Your task to perform on an android device: Open calendar and show me the second week of next month Image 0: 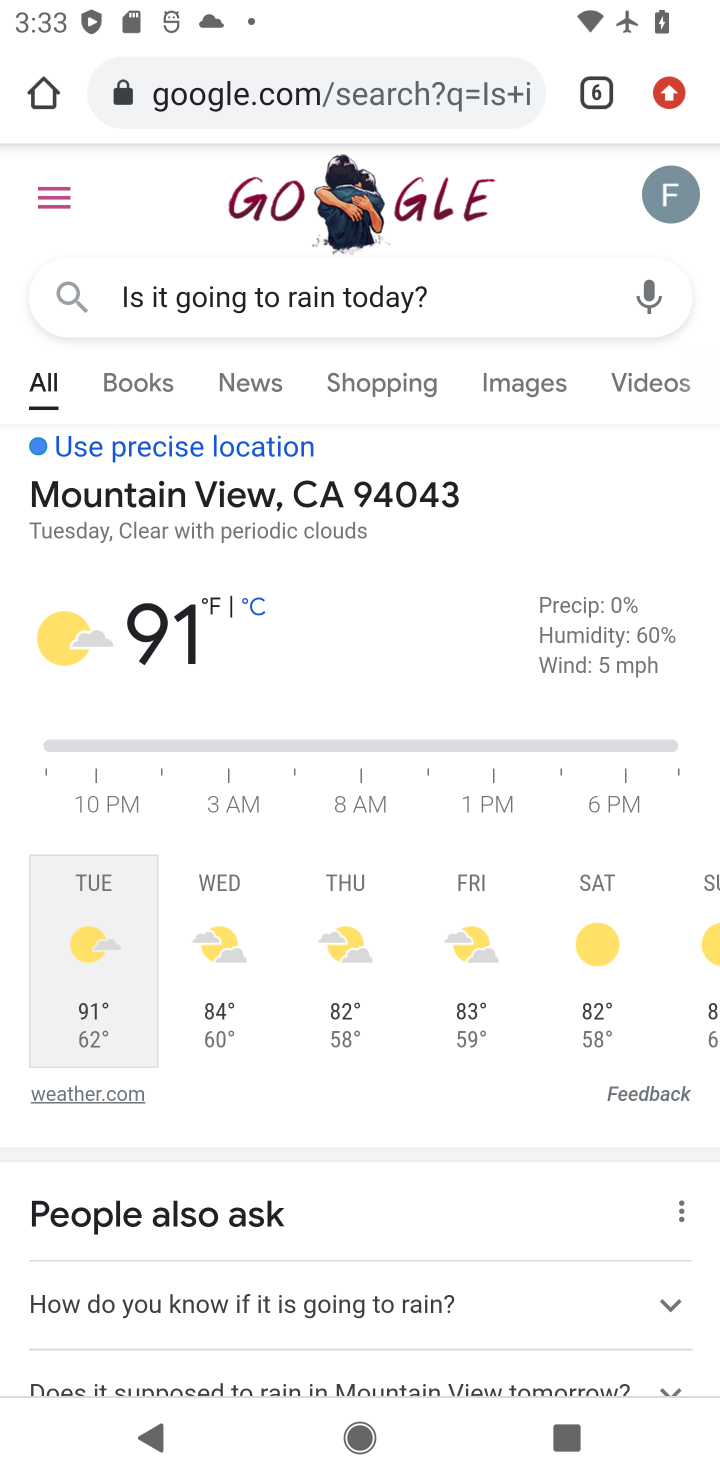
Step 0: press home button
Your task to perform on an android device: Open calendar and show me the second week of next month Image 1: 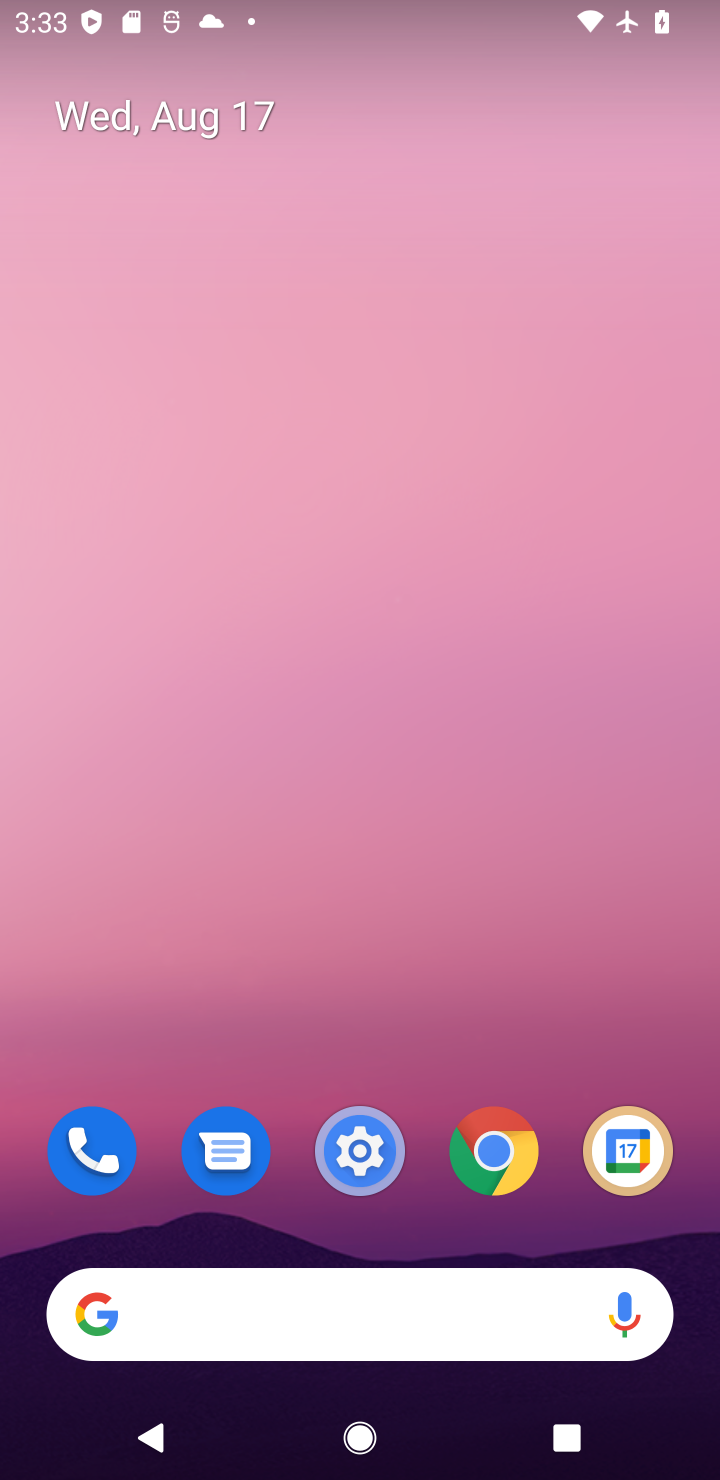
Step 1: drag from (305, 1016) to (347, 254)
Your task to perform on an android device: Open calendar and show me the second week of next month Image 2: 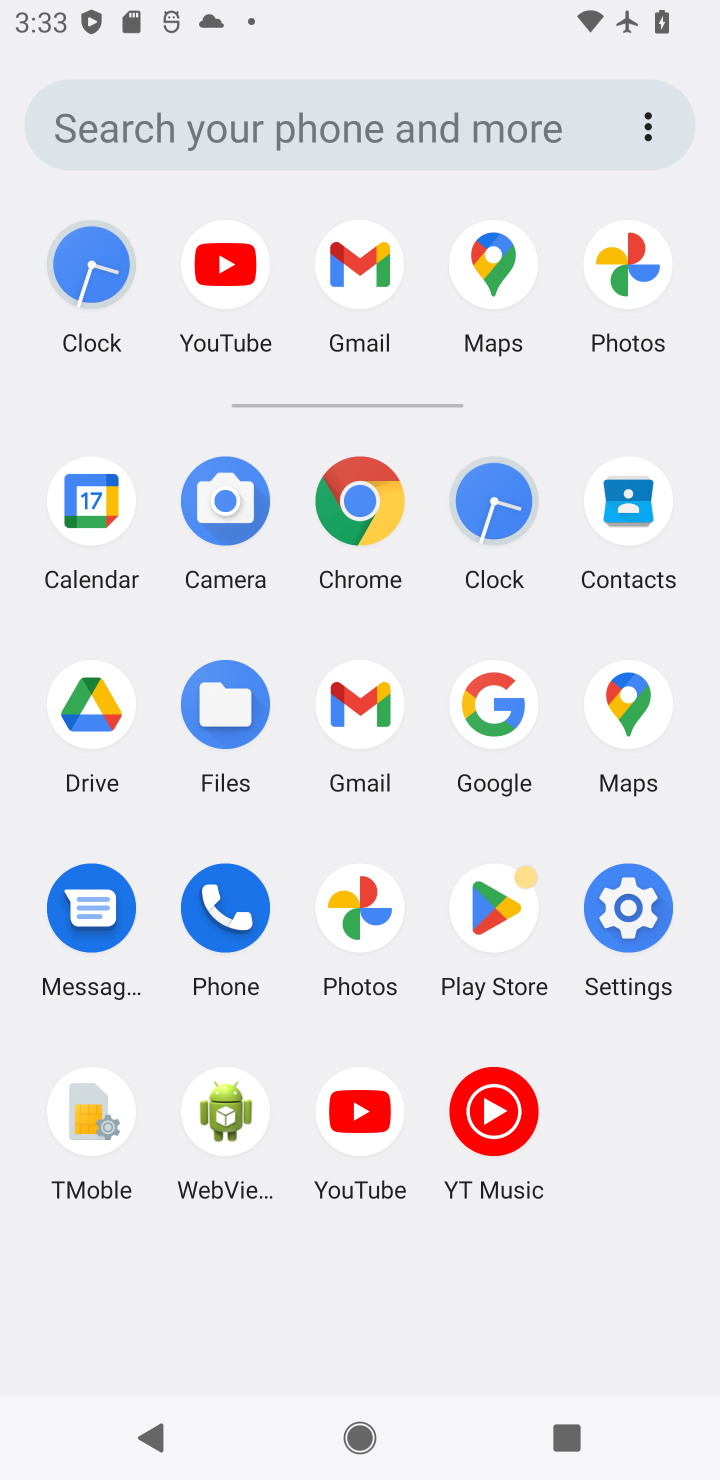
Step 2: click (111, 513)
Your task to perform on an android device: Open calendar and show me the second week of next month Image 3: 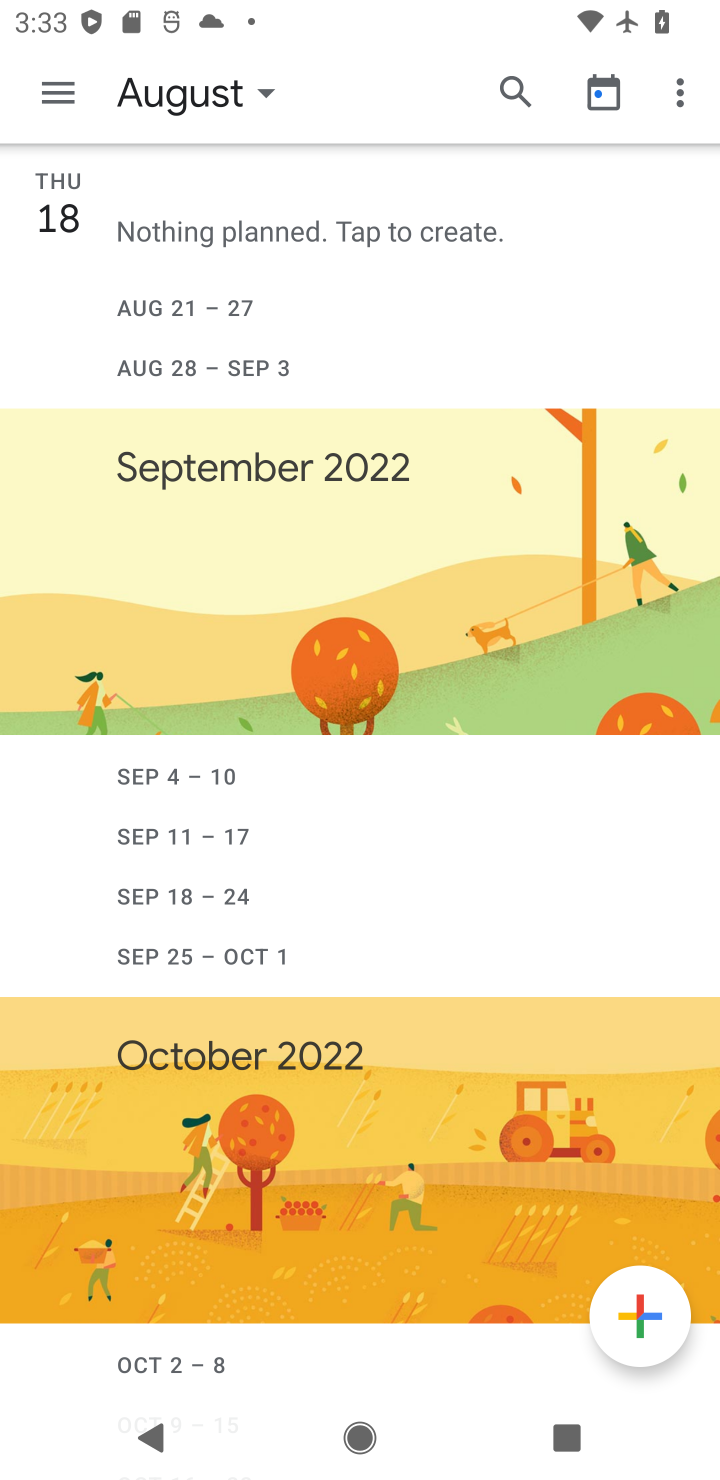
Step 3: click (65, 90)
Your task to perform on an android device: Open calendar and show me the second week of next month Image 4: 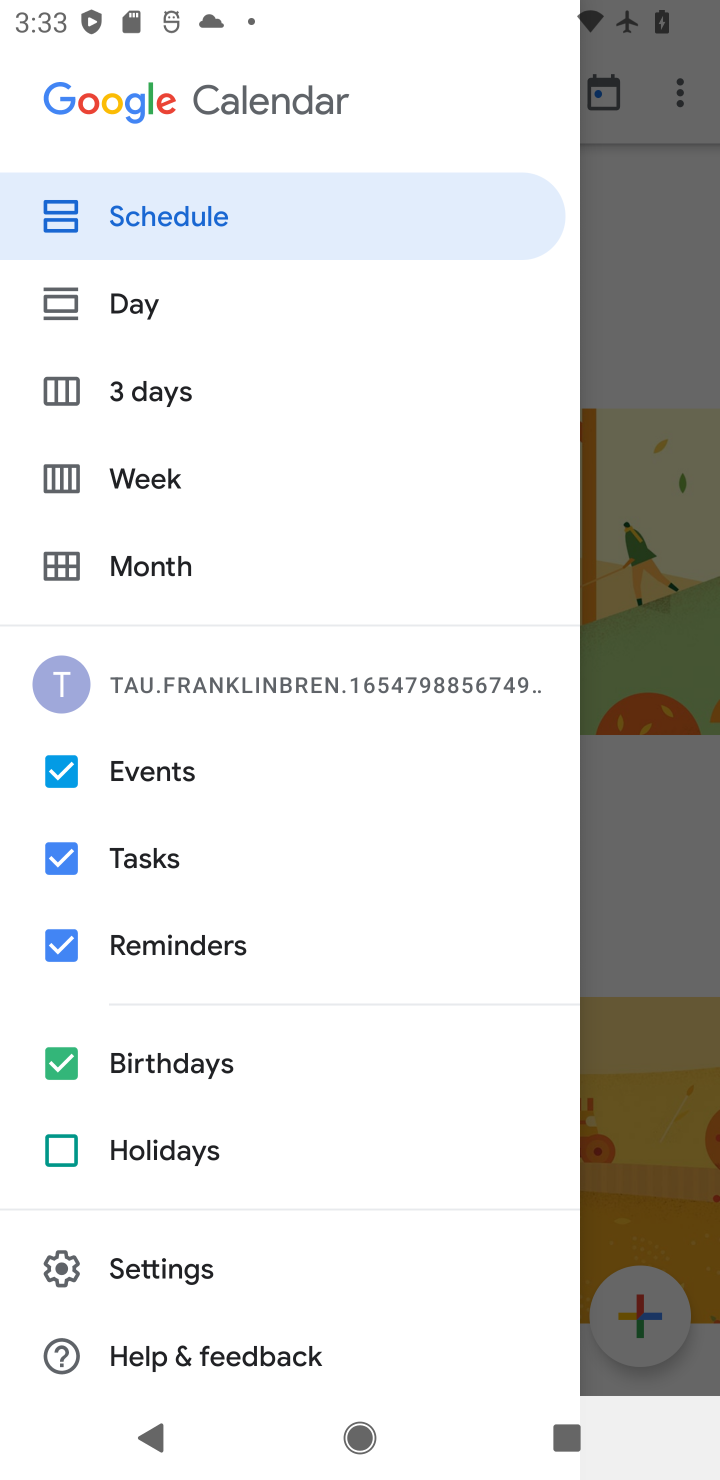
Step 4: click (159, 473)
Your task to perform on an android device: Open calendar and show me the second week of next month Image 5: 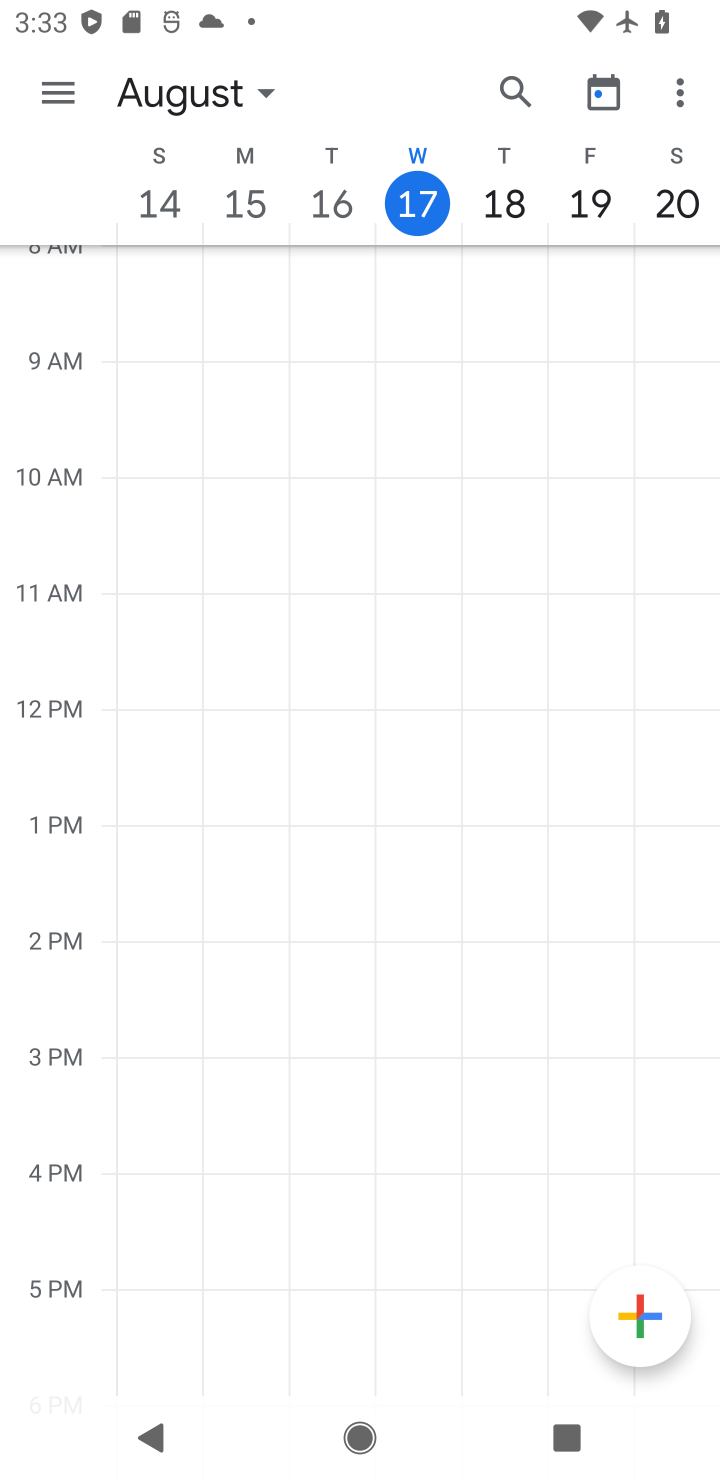
Step 5: task complete